Your task to perform on an android device: Open Yahoo.com Image 0: 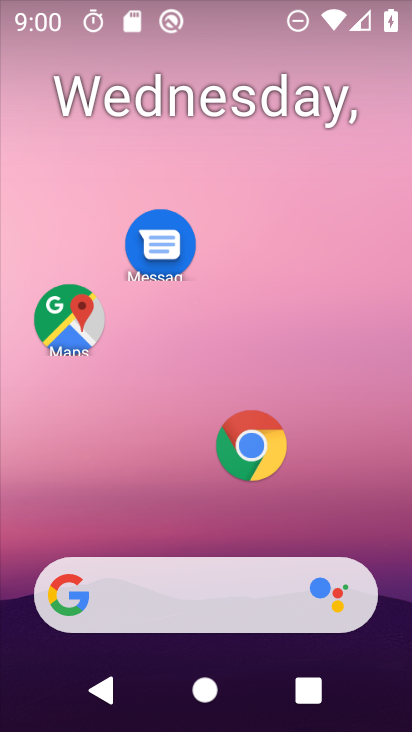
Step 0: click (246, 446)
Your task to perform on an android device: Open Yahoo.com Image 1: 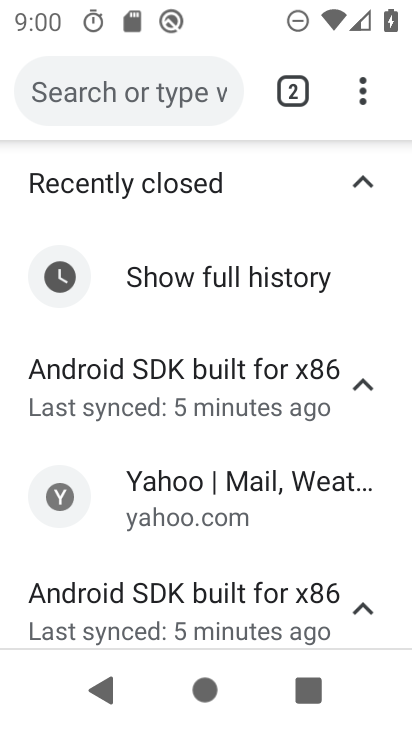
Step 1: click (296, 88)
Your task to perform on an android device: Open Yahoo.com Image 2: 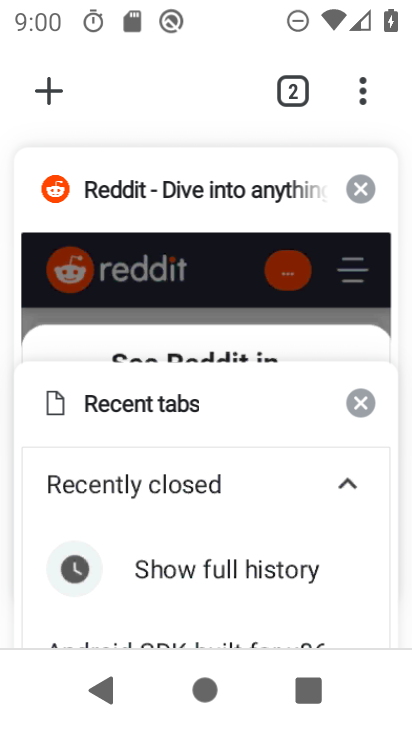
Step 2: click (359, 183)
Your task to perform on an android device: Open Yahoo.com Image 3: 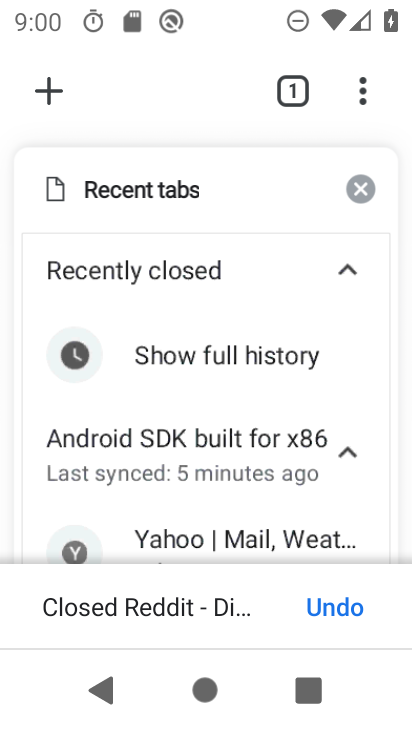
Step 3: click (359, 183)
Your task to perform on an android device: Open Yahoo.com Image 4: 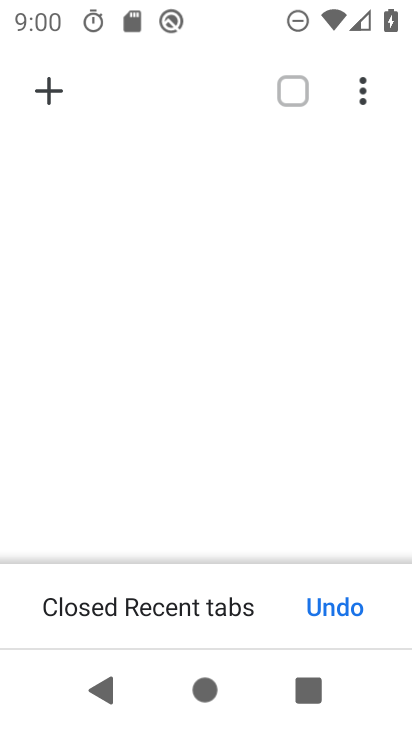
Step 4: click (53, 88)
Your task to perform on an android device: Open Yahoo.com Image 5: 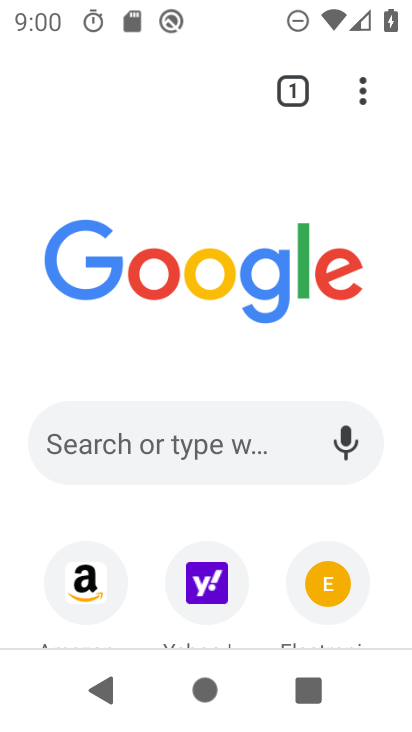
Step 5: click (214, 576)
Your task to perform on an android device: Open Yahoo.com Image 6: 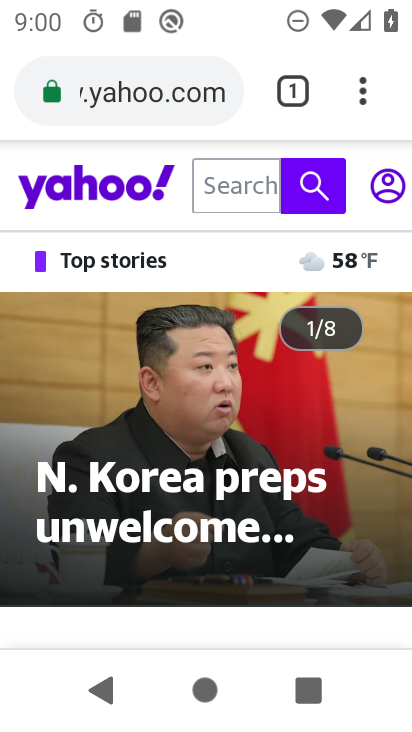
Step 6: drag from (209, 594) to (237, 192)
Your task to perform on an android device: Open Yahoo.com Image 7: 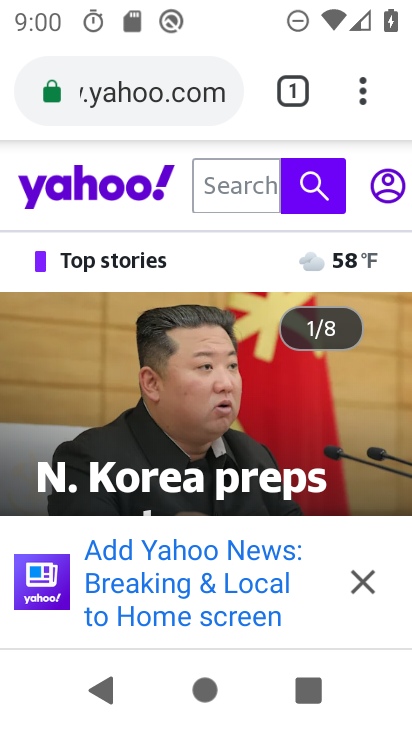
Step 7: click (364, 583)
Your task to perform on an android device: Open Yahoo.com Image 8: 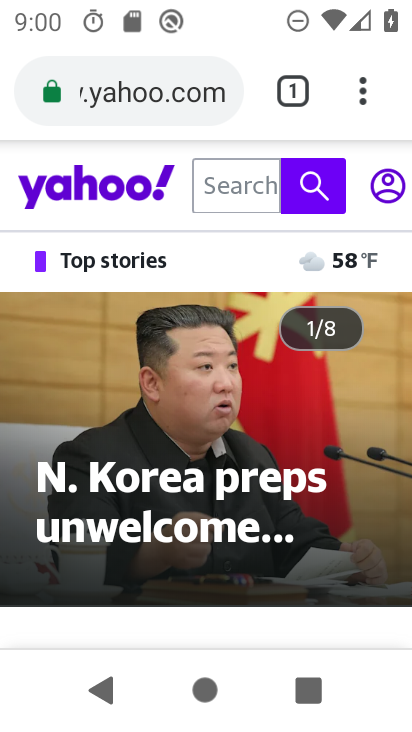
Step 8: task complete